Your task to perform on an android device: When is my next appointment? Image 0: 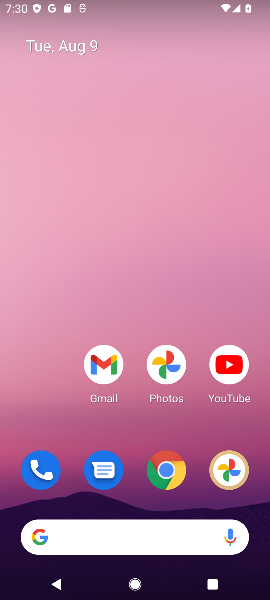
Step 0: drag from (86, 574) to (121, 302)
Your task to perform on an android device: When is my next appointment? Image 1: 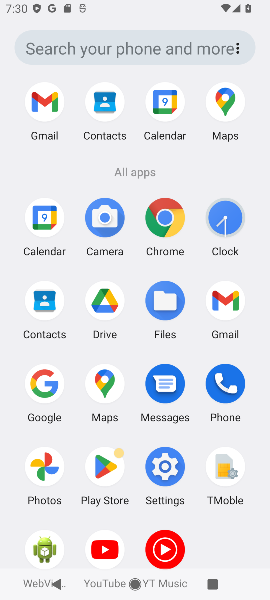
Step 1: click (165, 95)
Your task to perform on an android device: When is my next appointment? Image 2: 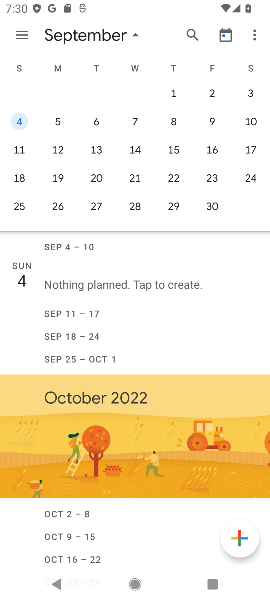
Step 2: click (15, 38)
Your task to perform on an android device: When is my next appointment? Image 3: 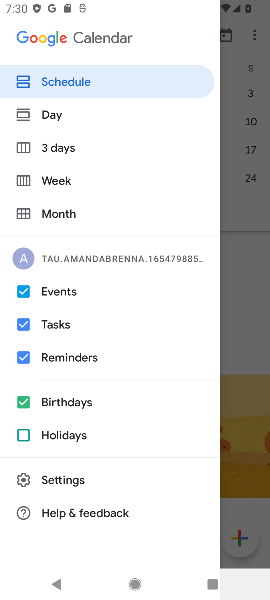
Step 3: click (133, 72)
Your task to perform on an android device: When is my next appointment? Image 4: 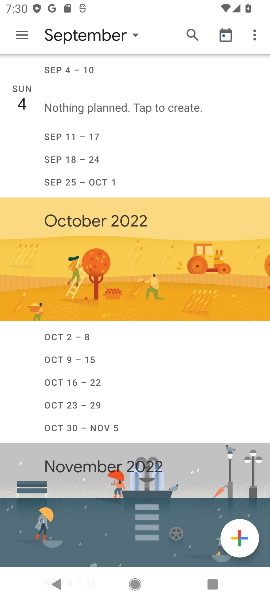
Step 4: task complete